Your task to perform on an android device: check android version Image 0: 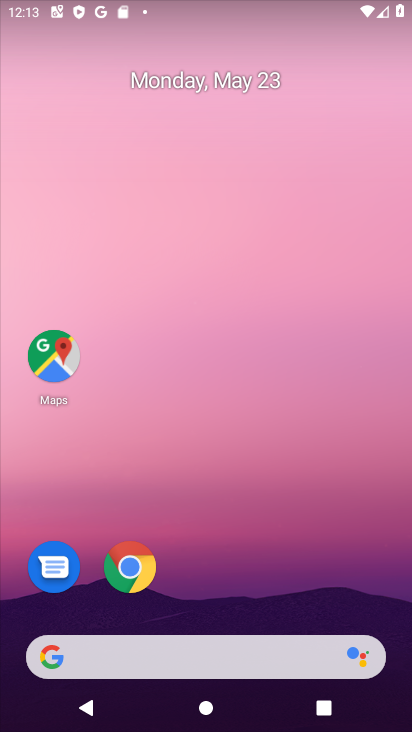
Step 0: drag from (246, 641) to (245, 130)
Your task to perform on an android device: check android version Image 1: 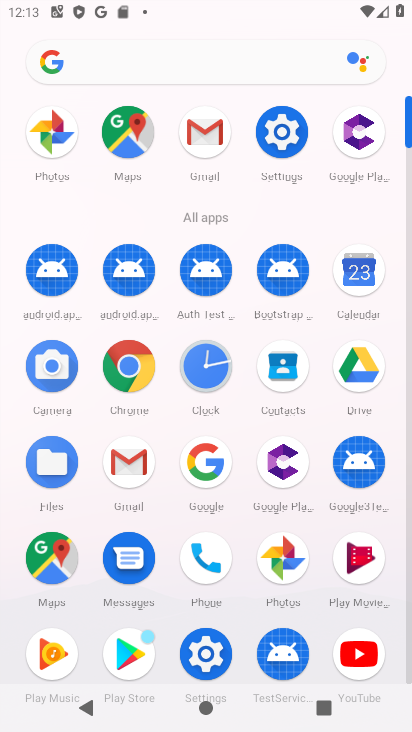
Step 1: click (291, 146)
Your task to perform on an android device: check android version Image 2: 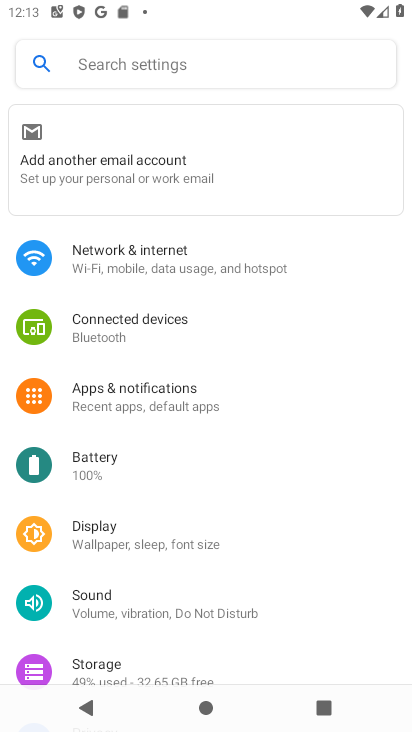
Step 2: task complete